Your task to perform on an android device: Open settings Image 0: 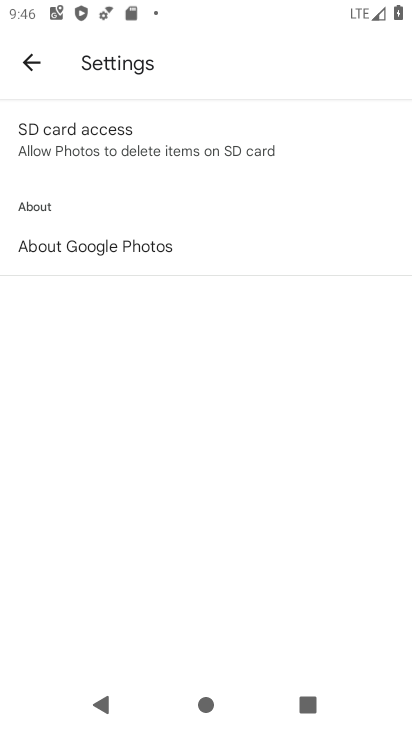
Step 0: press home button
Your task to perform on an android device: Open settings Image 1: 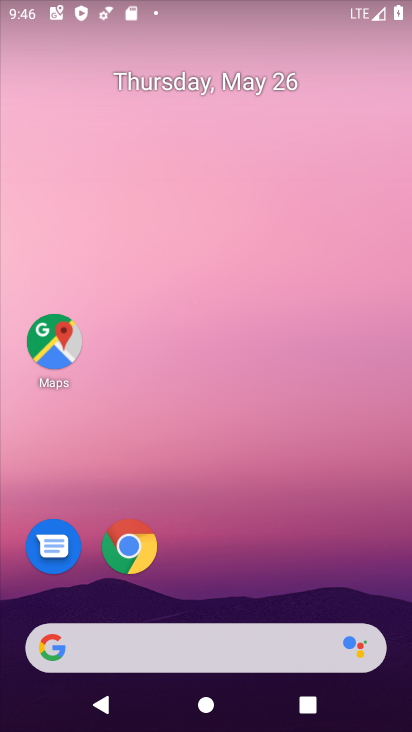
Step 1: drag from (367, 531) to (345, 186)
Your task to perform on an android device: Open settings Image 2: 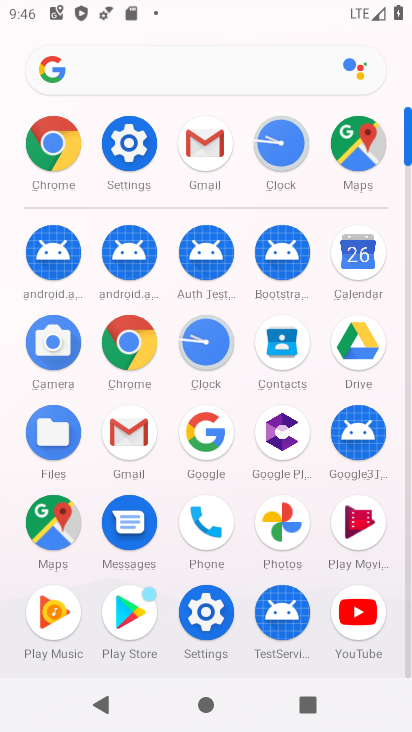
Step 2: click (221, 613)
Your task to perform on an android device: Open settings Image 3: 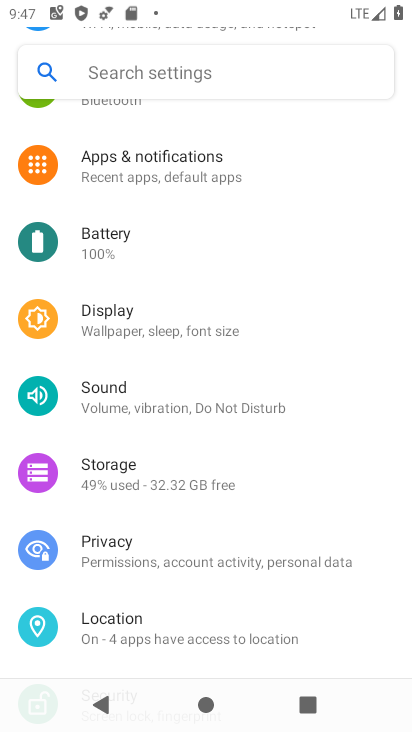
Step 3: task complete